Your task to perform on an android device: Open accessibility settings Image 0: 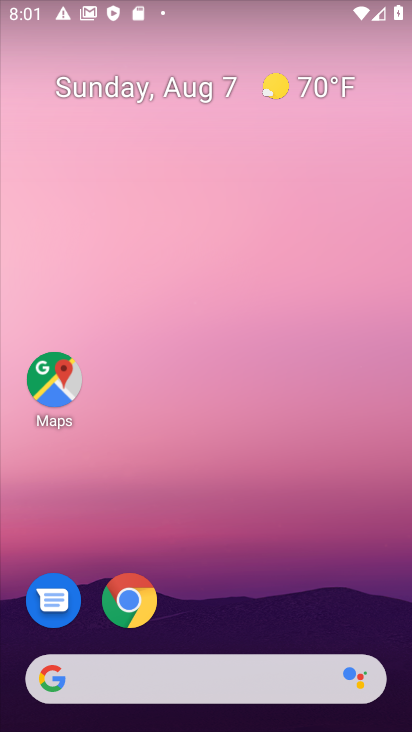
Step 0: click (183, 611)
Your task to perform on an android device: Open accessibility settings Image 1: 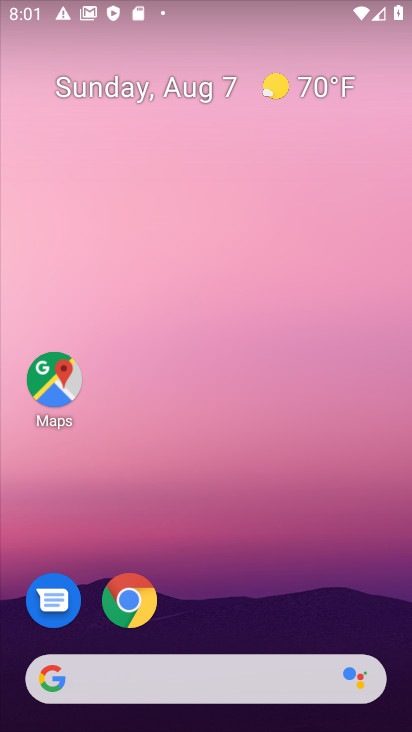
Step 1: press home button
Your task to perform on an android device: Open accessibility settings Image 2: 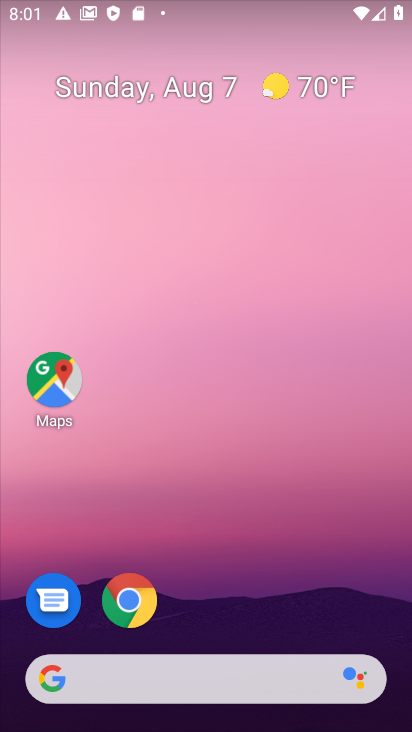
Step 2: drag from (200, 603) to (197, 0)
Your task to perform on an android device: Open accessibility settings Image 3: 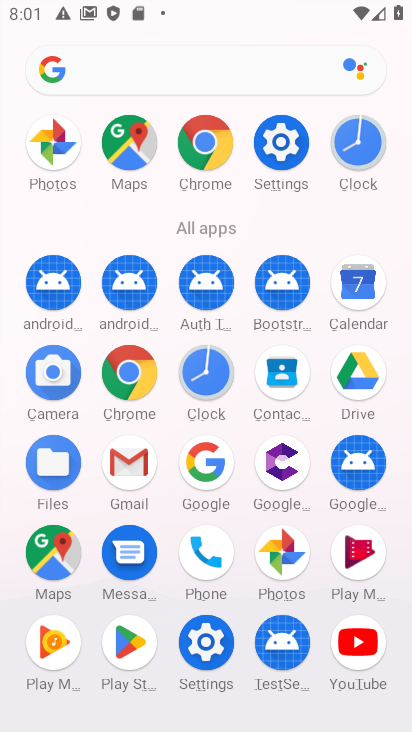
Step 3: click (280, 139)
Your task to perform on an android device: Open accessibility settings Image 4: 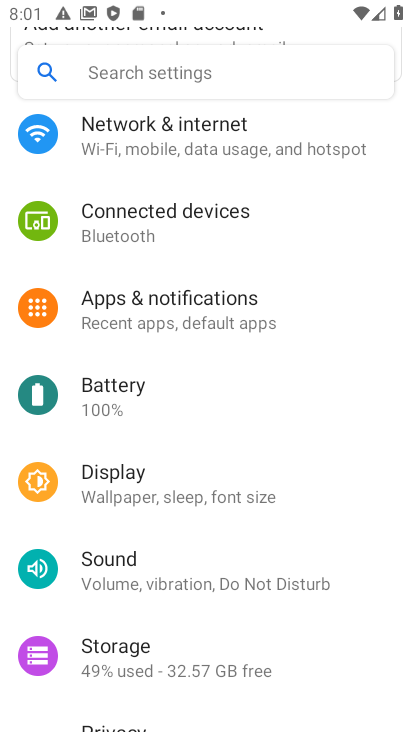
Step 4: drag from (186, 545) to (239, 132)
Your task to perform on an android device: Open accessibility settings Image 5: 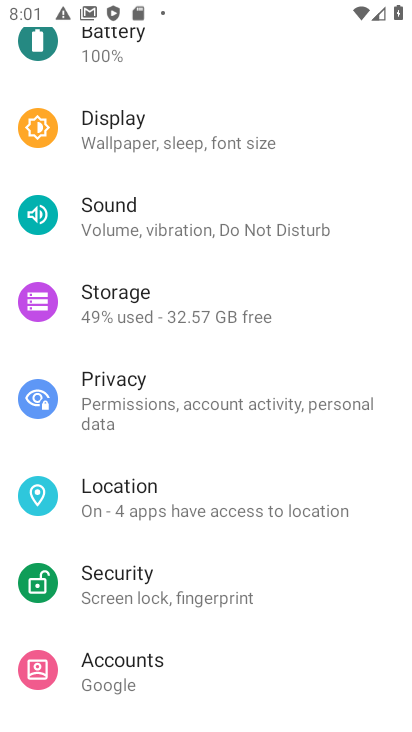
Step 5: drag from (152, 682) to (170, 305)
Your task to perform on an android device: Open accessibility settings Image 6: 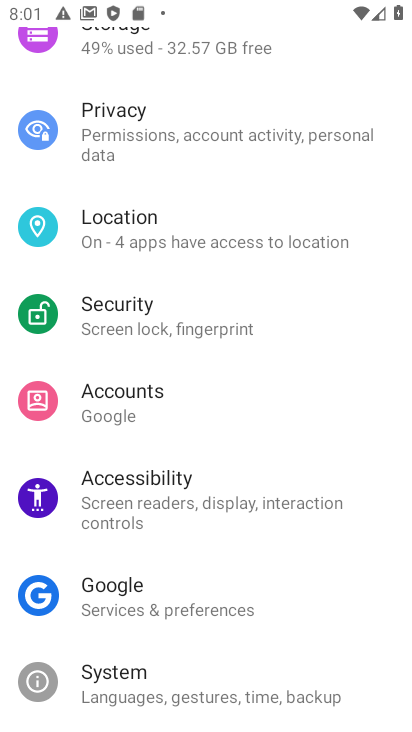
Step 6: click (177, 504)
Your task to perform on an android device: Open accessibility settings Image 7: 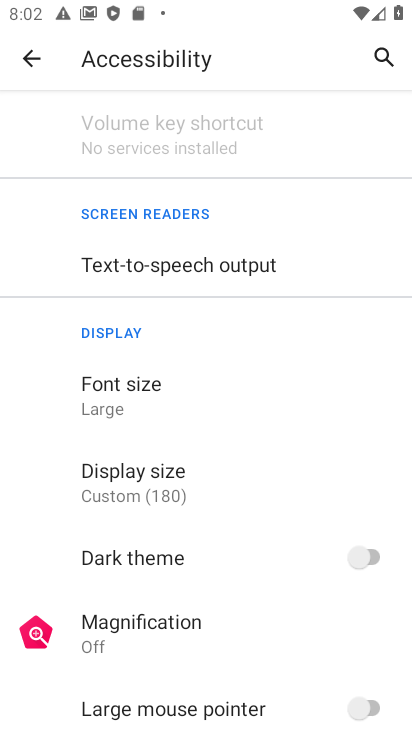
Step 7: task complete